Your task to perform on an android device: What's the weather going to be tomorrow? Image 0: 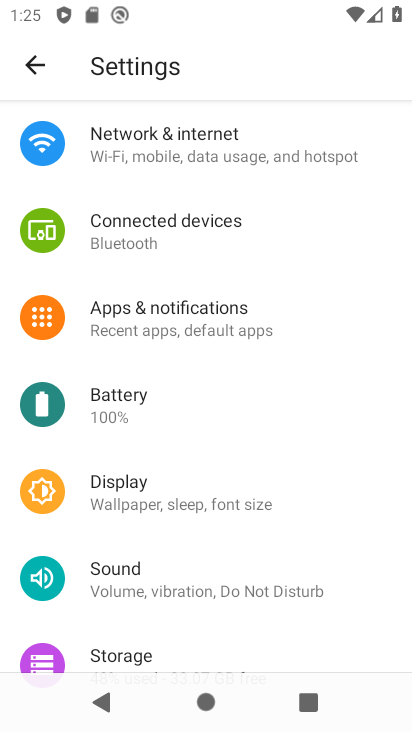
Step 0: press home button
Your task to perform on an android device: What's the weather going to be tomorrow? Image 1: 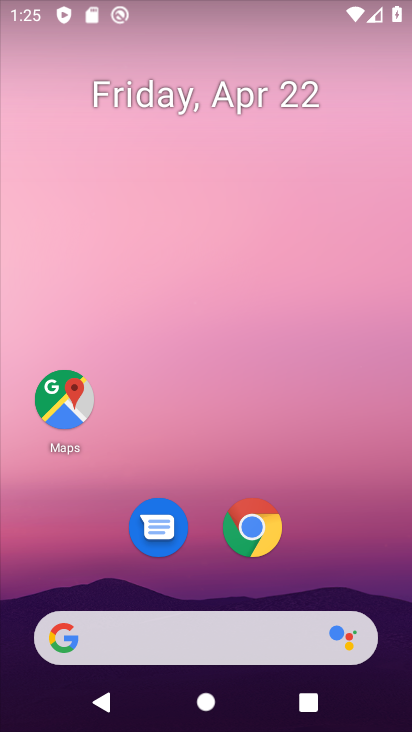
Step 1: drag from (10, 202) to (190, 190)
Your task to perform on an android device: What's the weather going to be tomorrow? Image 2: 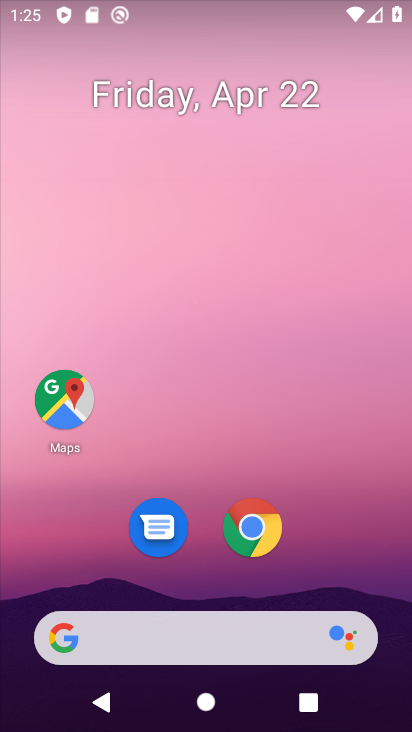
Step 2: drag from (3, 197) to (410, 137)
Your task to perform on an android device: What's the weather going to be tomorrow? Image 3: 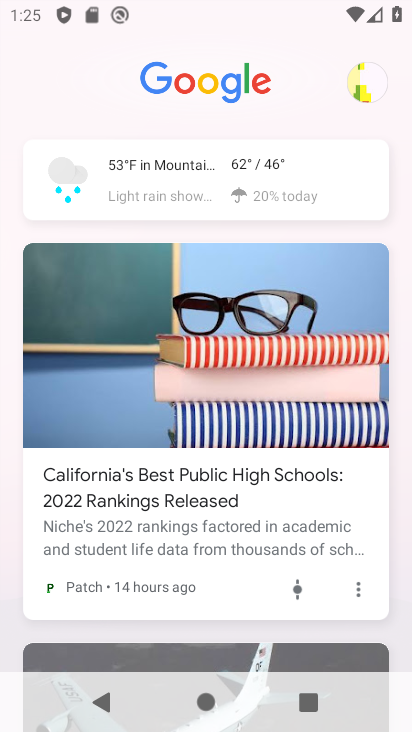
Step 3: click (327, 186)
Your task to perform on an android device: What's the weather going to be tomorrow? Image 4: 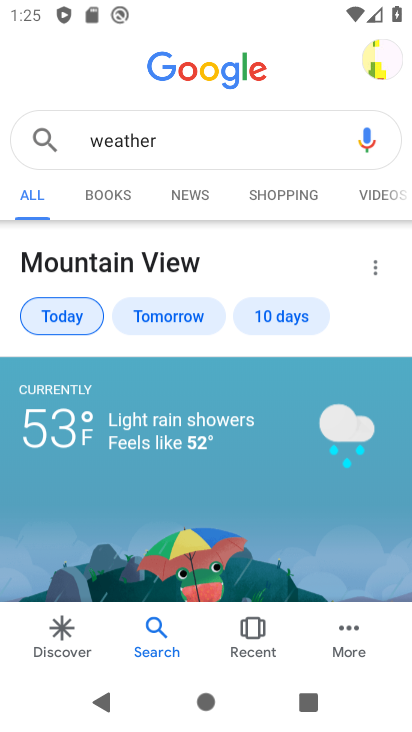
Step 4: click (164, 308)
Your task to perform on an android device: What's the weather going to be tomorrow? Image 5: 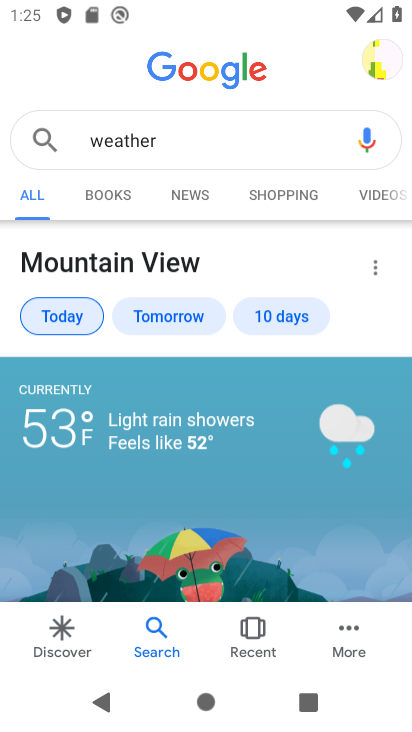
Step 5: click (215, 319)
Your task to perform on an android device: What's the weather going to be tomorrow? Image 6: 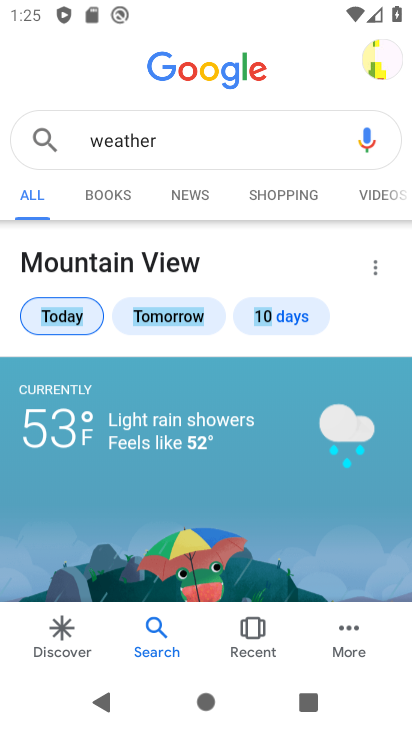
Step 6: drag from (219, 525) to (197, 264)
Your task to perform on an android device: What's the weather going to be tomorrow? Image 7: 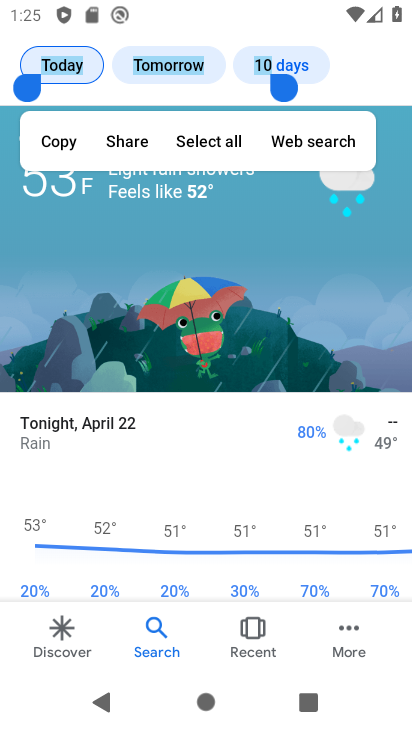
Step 7: click (260, 467)
Your task to perform on an android device: What's the weather going to be tomorrow? Image 8: 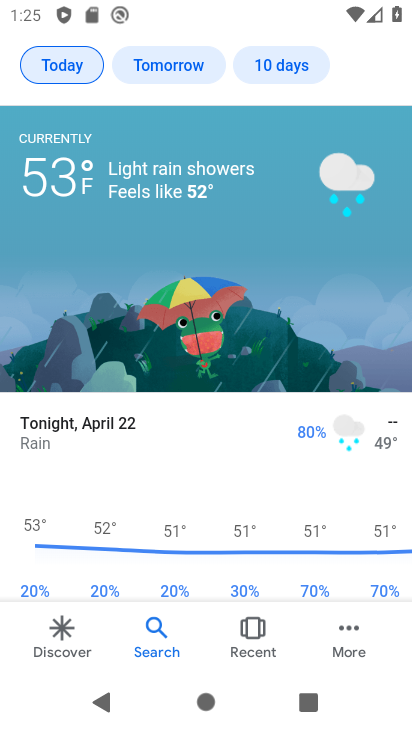
Step 8: click (167, 59)
Your task to perform on an android device: What's the weather going to be tomorrow? Image 9: 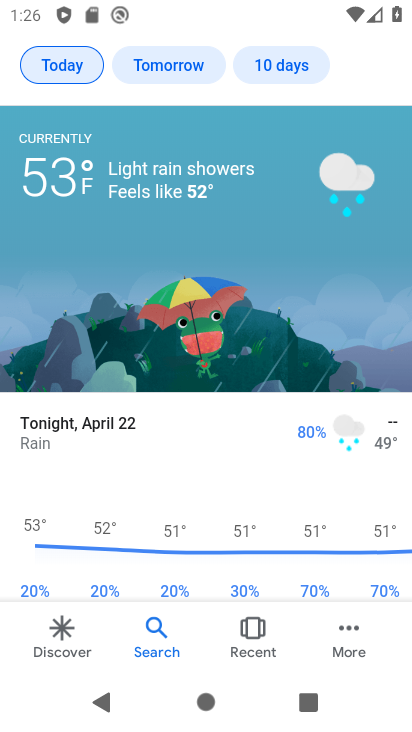
Step 9: task complete